Your task to perform on an android device: What is the recent news? Image 0: 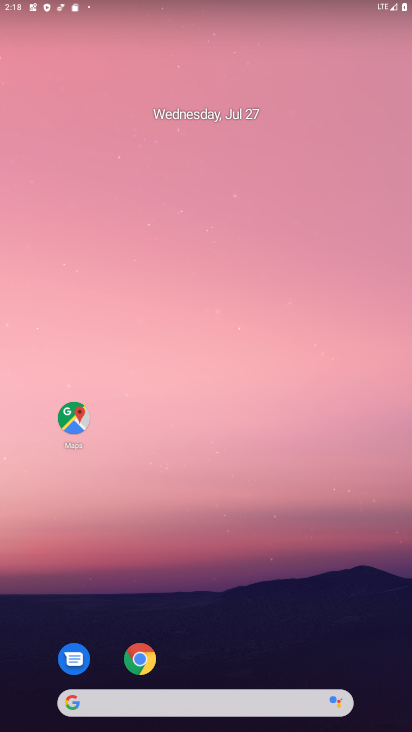
Step 0: drag from (3, 241) to (408, 240)
Your task to perform on an android device: What is the recent news? Image 1: 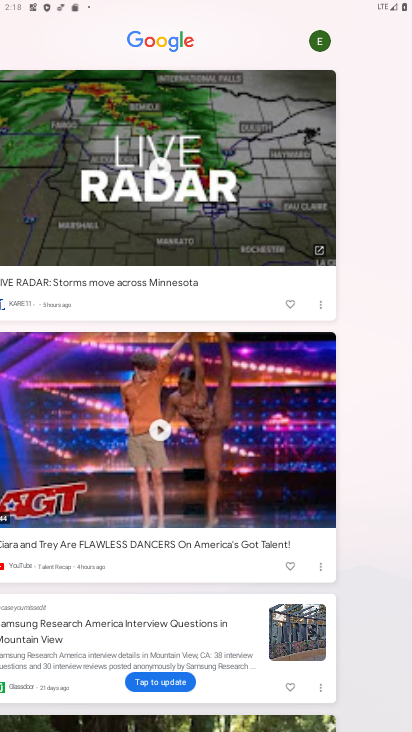
Step 1: task complete